Your task to perform on an android device: toggle priority inbox in the gmail app Image 0: 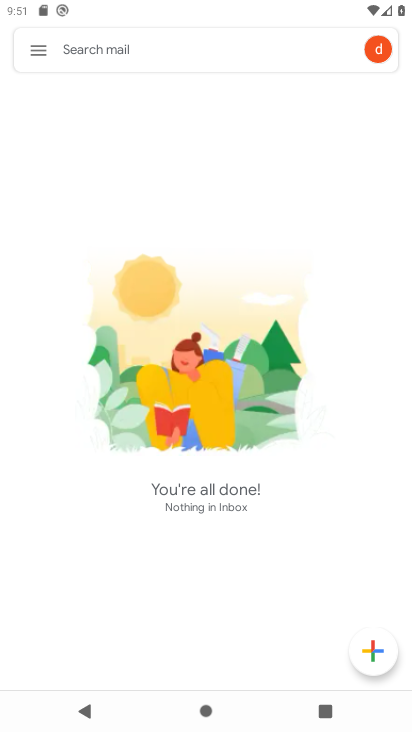
Step 0: press back button
Your task to perform on an android device: toggle priority inbox in the gmail app Image 1: 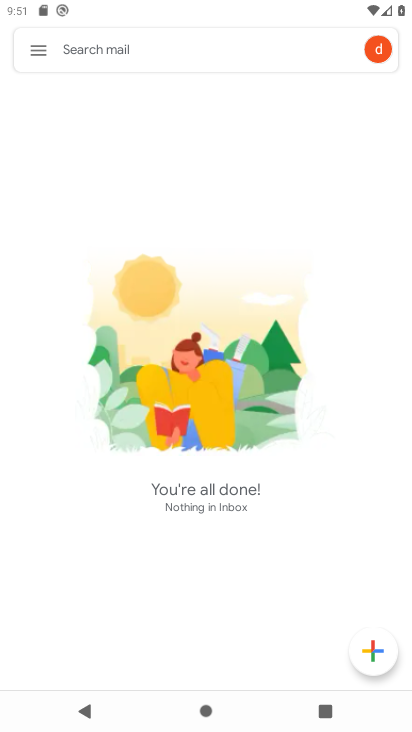
Step 1: click (33, 51)
Your task to perform on an android device: toggle priority inbox in the gmail app Image 2: 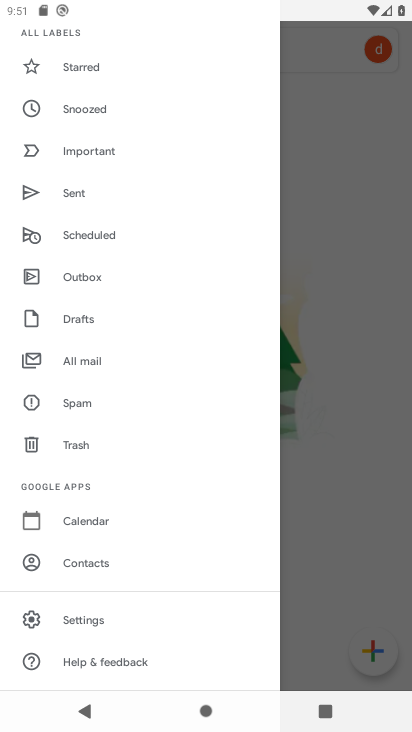
Step 2: click (82, 613)
Your task to perform on an android device: toggle priority inbox in the gmail app Image 3: 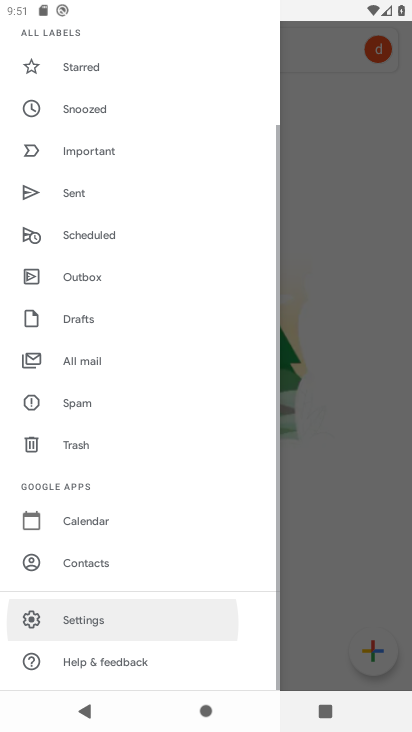
Step 3: click (79, 616)
Your task to perform on an android device: toggle priority inbox in the gmail app Image 4: 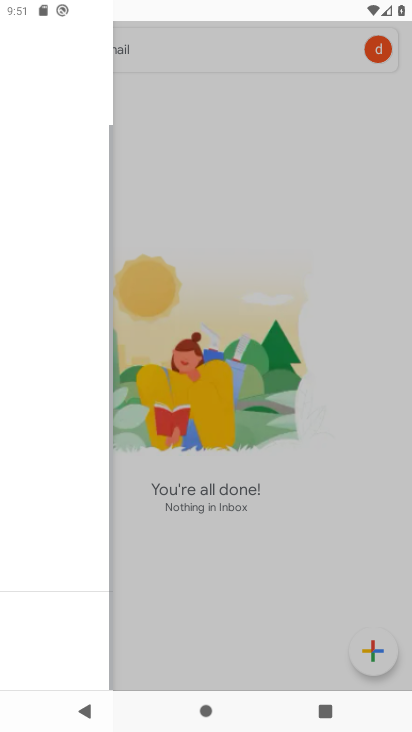
Step 4: click (81, 617)
Your task to perform on an android device: toggle priority inbox in the gmail app Image 5: 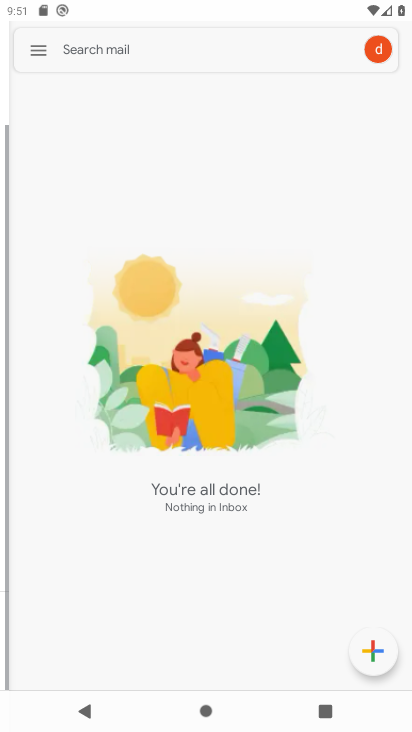
Step 5: click (82, 618)
Your task to perform on an android device: toggle priority inbox in the gmail app Image 6: 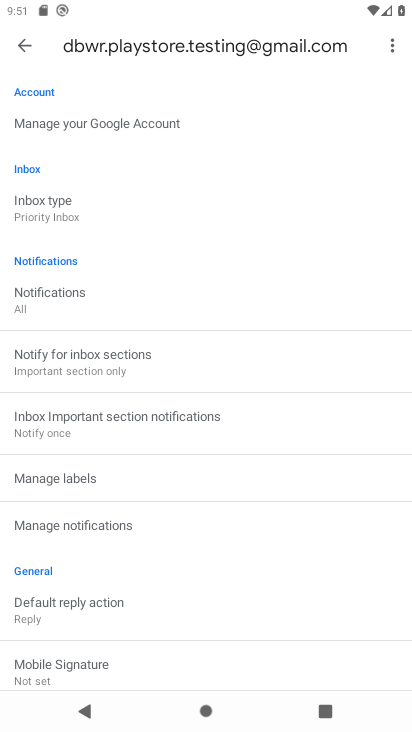
Step 6: task complete